Your task to perform on an android device: Open accessibility settings Image 0: 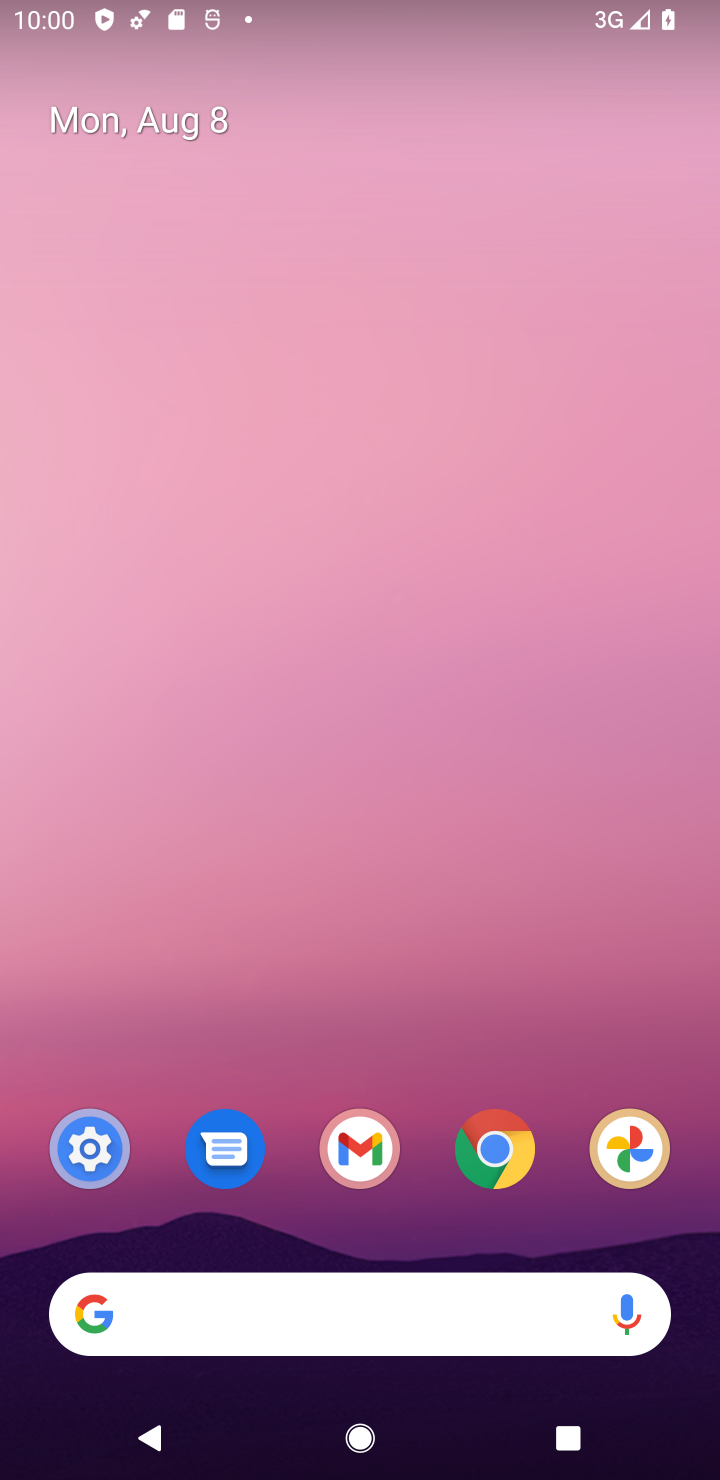
Step 0: drag from (390, 553) to (390, 384)
Your task to perform on an android device: Open accessibility settings Image 1: 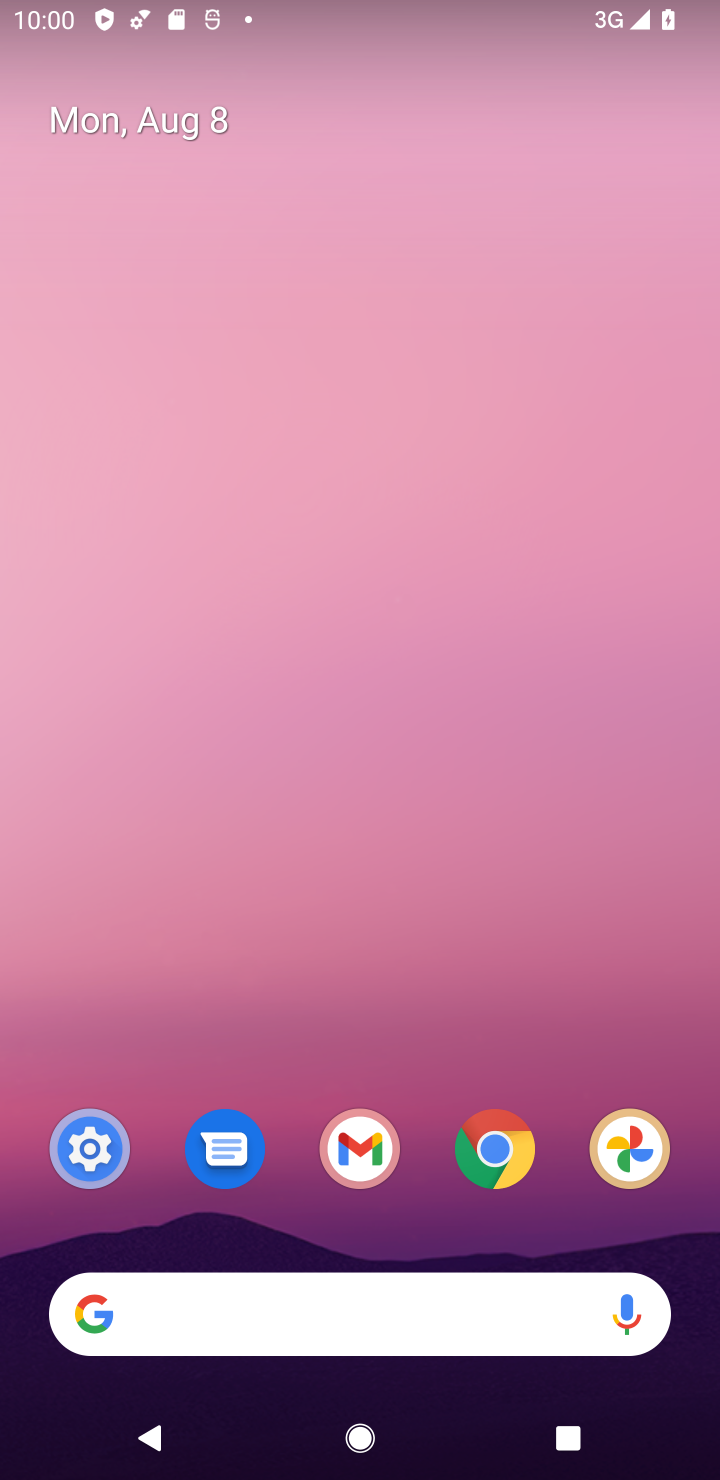
Step 1: drag from (360, 1291) to (282, 480)
Your task to perform on an android device: Open accessibility settings Image 2: 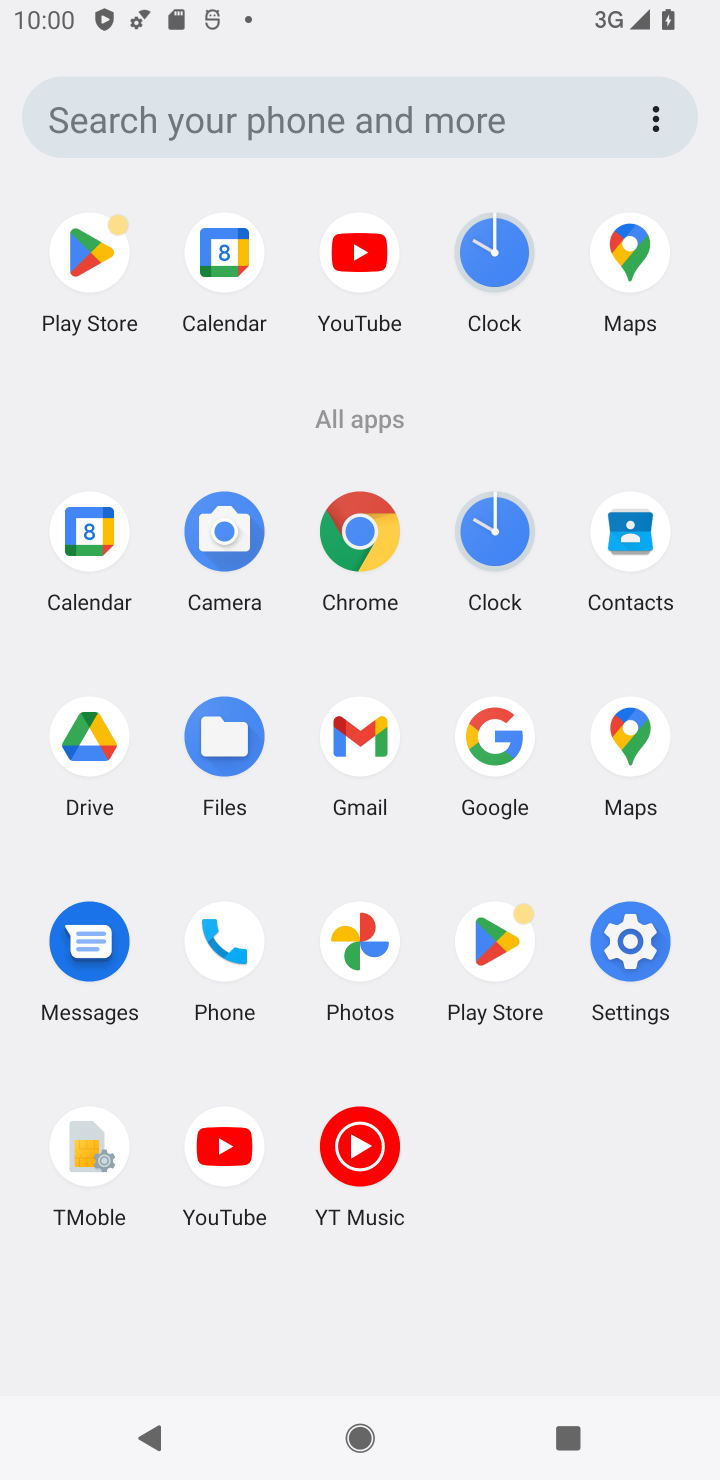
Step 2: click (640, 939)
Your task to perform on an android device: Open accessibility settings Image 3: 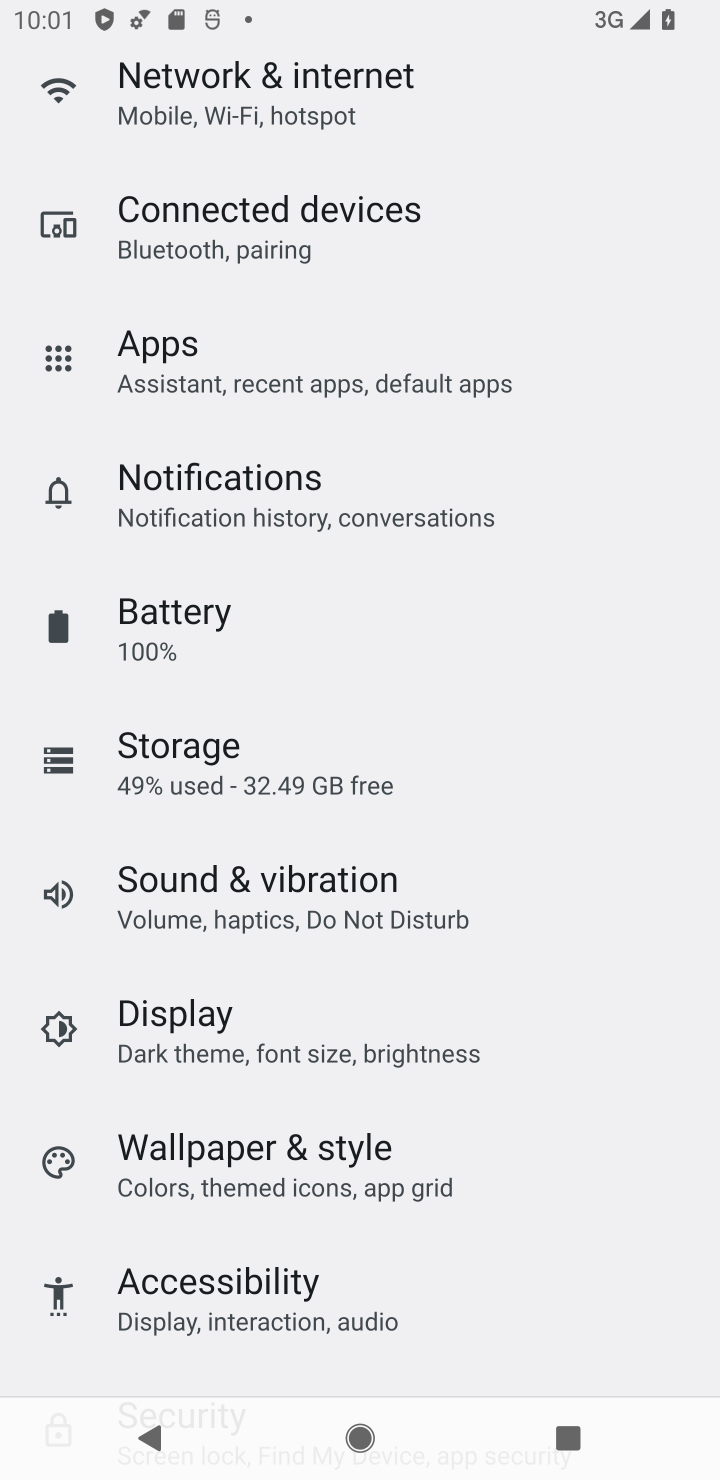
Step 3: click (242, 1282)
Your task to perform on an android device: Open accessibility settings Image 4: 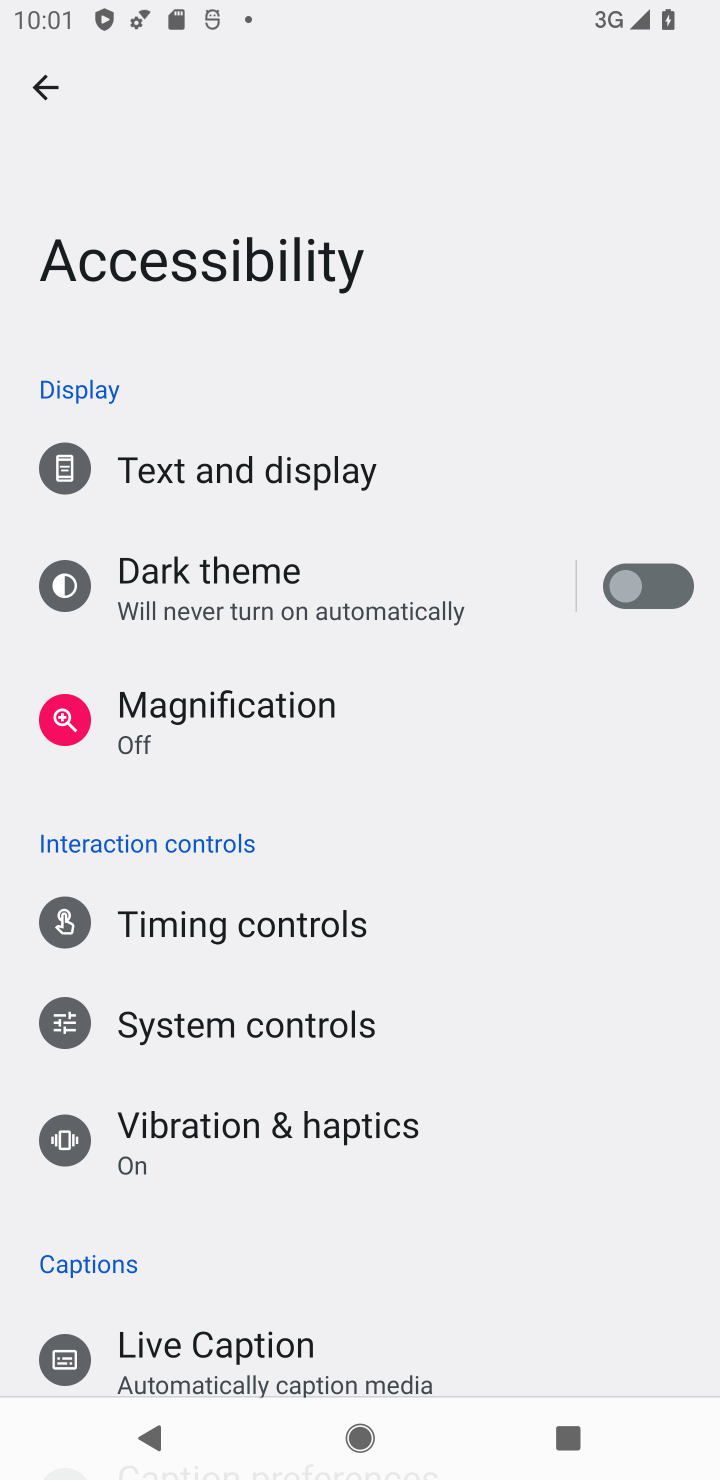
Step 4: task complete